Your task to perform on an android device: delete location history Image 0: 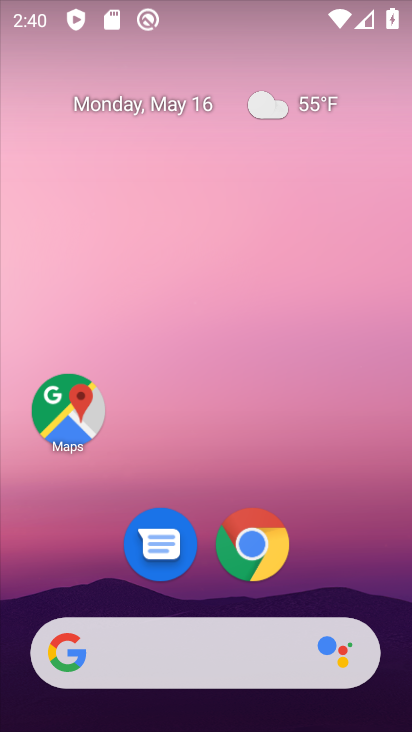
Step 0: drag from (346, 534) to (339, 65)
Your task to perform on an android device: delete location history Image 1: 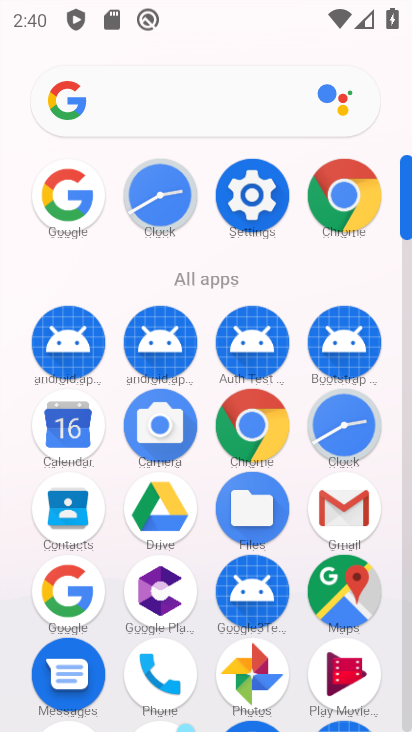
Step 1: click (267, 189)
Your task to perform on an android device: delete location history Image 2: 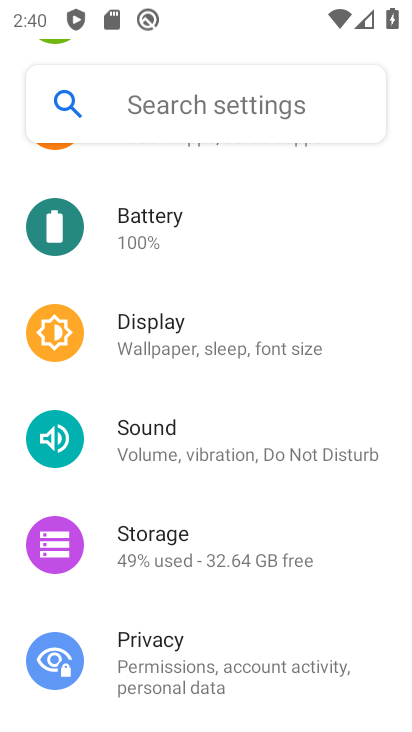
Step 2: drag from (171, 585) to (233, 272)
Your task to perform on an android device: delete location history Image 3: 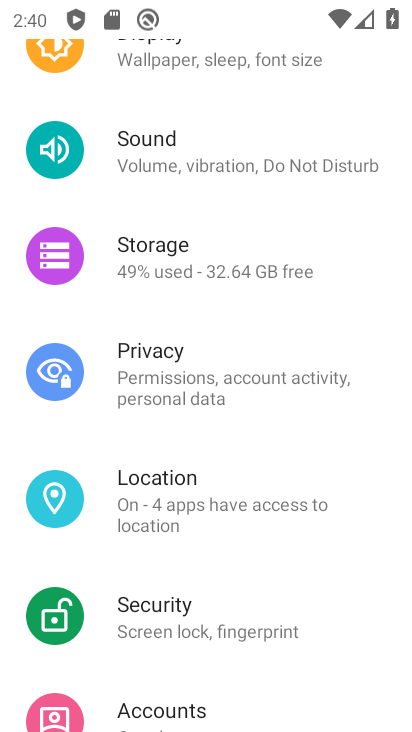
Step 3: click (208, 483)
Your task to perform on an android device: delete location history Image 4: 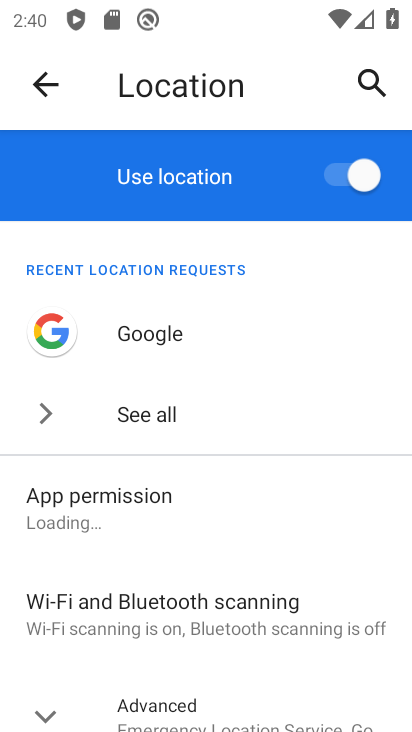
Step 4: drag from (208, 441) to (207, 109)
Your task to perform on an android device: delete location history Image 5: 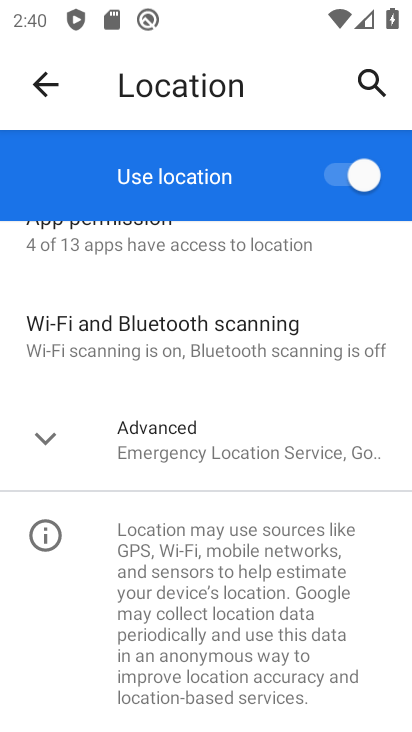
Step 5: click (210, 538)
Your task to perform on an android device: delete location history Image 6: 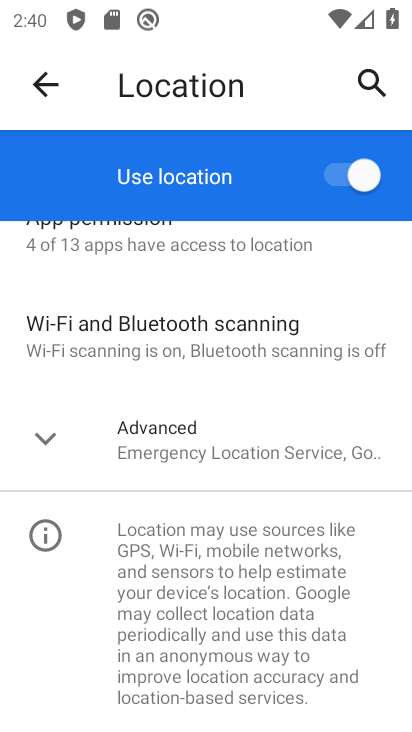
Step 6: press home button
Your task to perform on an android device: delete location history Image 7: 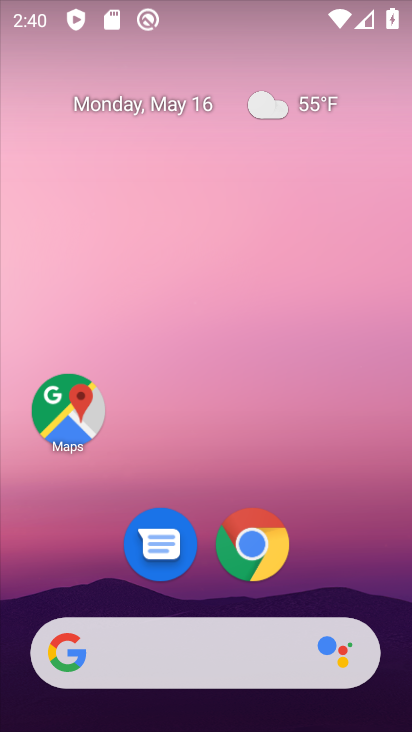
Step 7: drag from (346, 567) to (281, 185)
Your task to perform on an android device: delete location history Image 8: 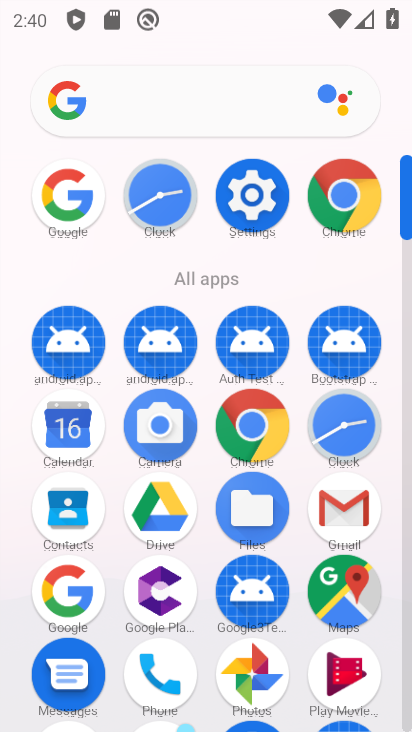
Step 8: click (347, 598)
Your task to perform on an android device: delete location history Image 9: 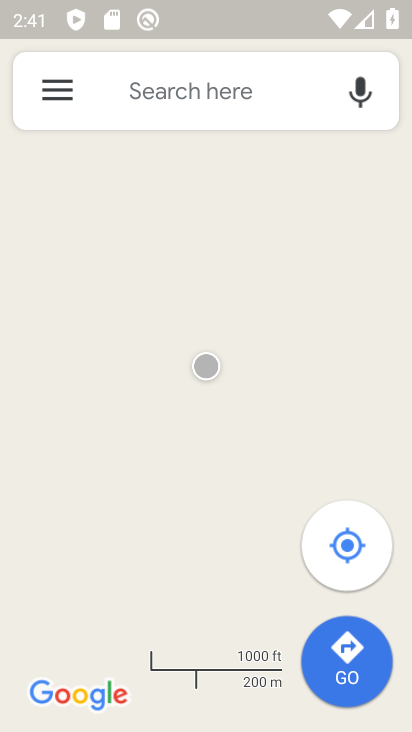
Step 9: click (54, 94)
Your task to perform on an android device: delete location history Image 10: 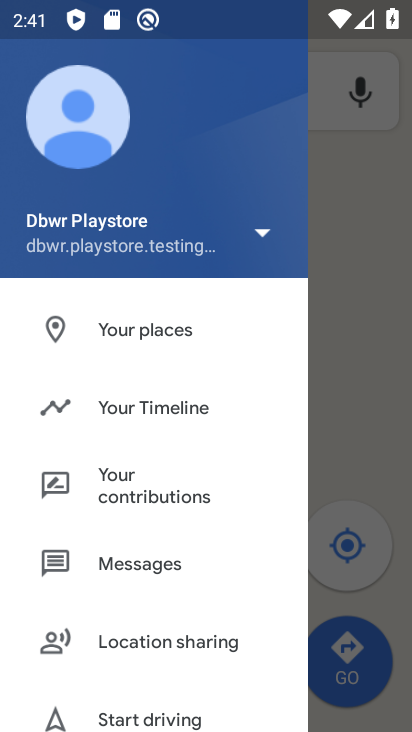
Step 10: click (150, 403)
Your task to perform on an android device: delete location history Image 11: 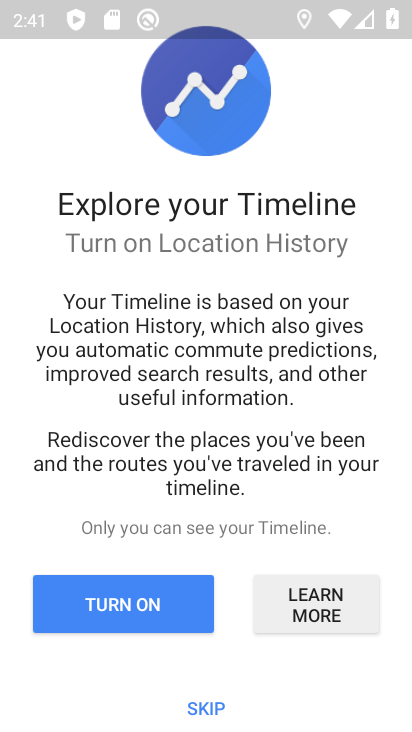
Step 11: click (227, 723)
Your task to perform on an android device: delete location history Image 12: 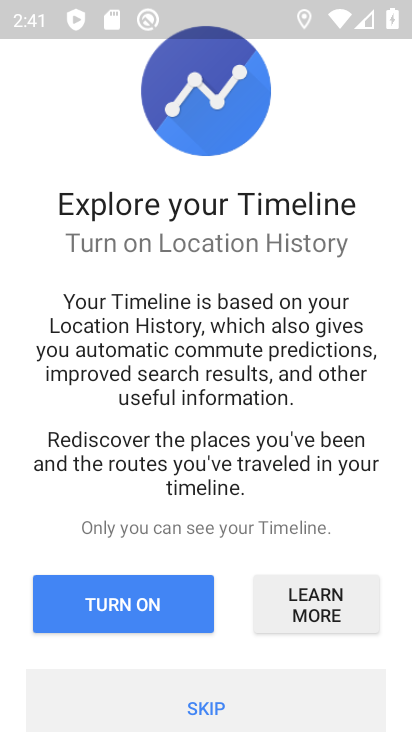
Step 12: click (218, 718)
Your task to perform on an android device: delete location history Image 13: 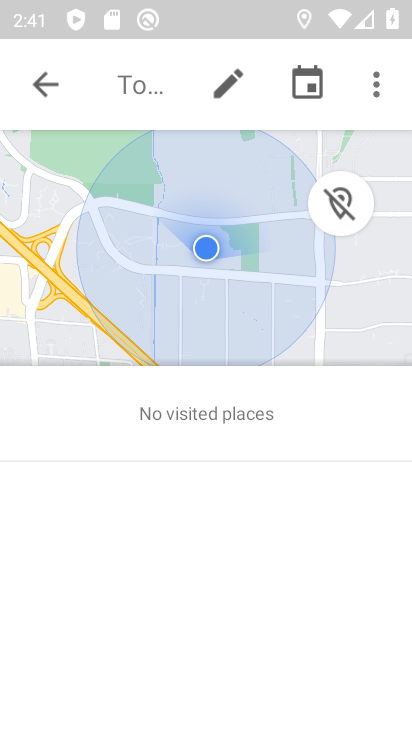
Step 13: click (380, 96)
Your task to perform on an android device: delete location history Image 14: 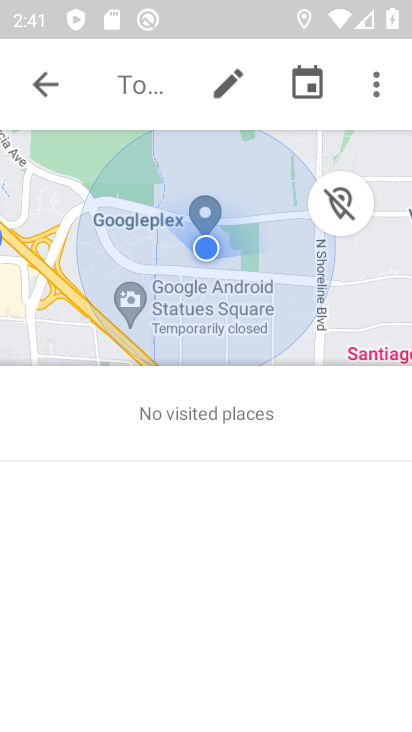
Step 14: click (365, 86)
Your task to perform on an android device: delete location history Image 15: 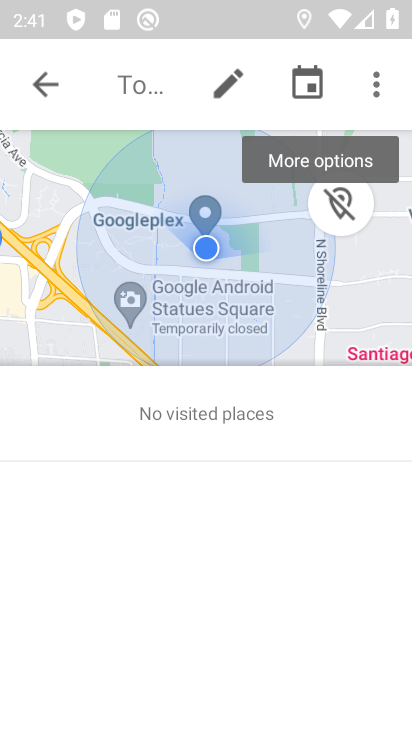
Step 15: click (366, 86)
Your task to perform on an android device: delete location history Image 16: 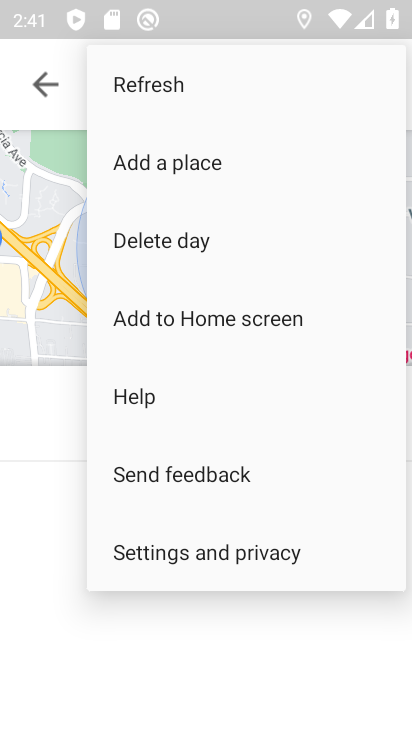
Step 16: click (170, 544)
Your task to perform on an android device: delete location history Image 17: 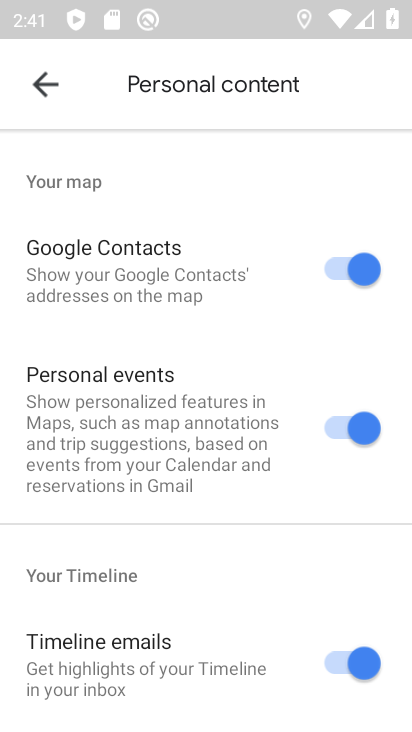
Step 17: drag from (170, 541) to (153, 261)
Your task to perform on an android device: delete location history Image 18: 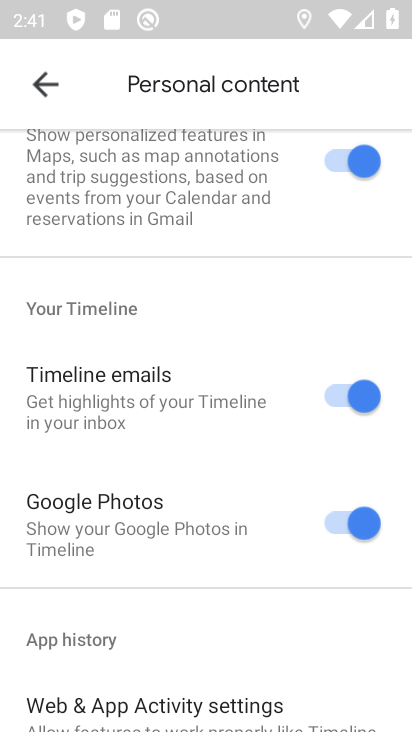
Step 18: drag from (157, 540) to (150, 299)
Your task to perform on an android device: delete location history Image 19: 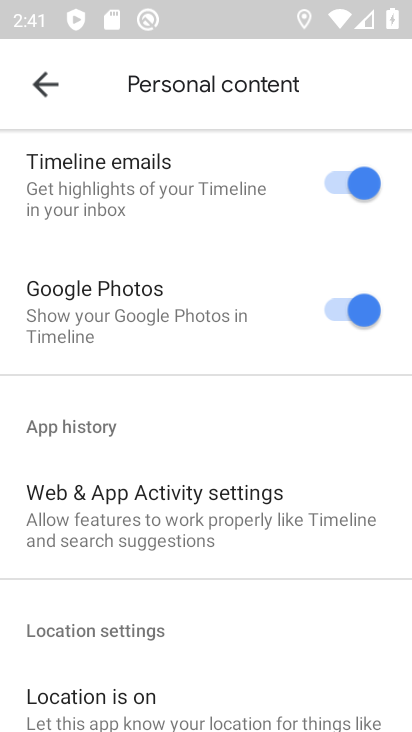
Step 19: drag from (180, 549) to (178, 337)
Your task to perform on an android device: delete location history Image 20: 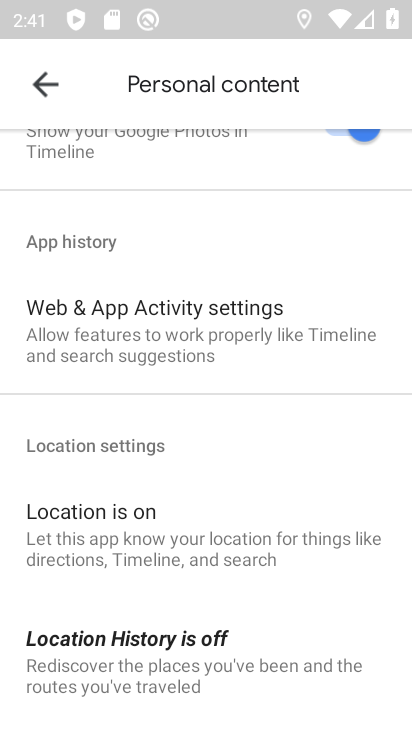
Step 20: drag from (197, 355) to (167, 601)
Your task to perform on an android device: delete location history Image 21: 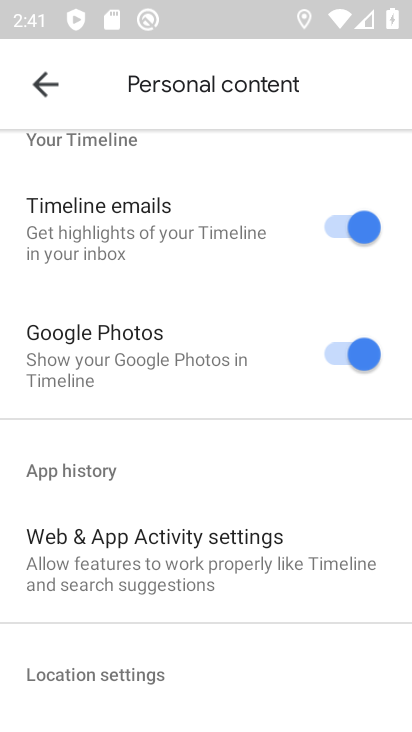
Step 21: drag from (170, 589) to (185, 417)
Your task to perform on an android device: delete location history Image 22: 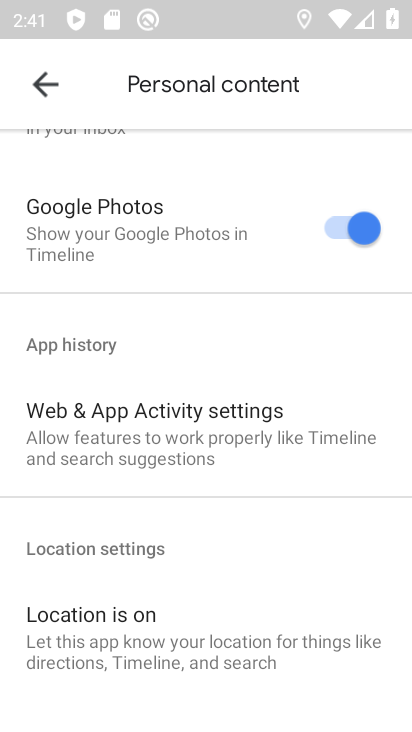
Step 22: drag from (161, 558) to (202, 410)
Your task to perform on an android device: delete location history Image 23: 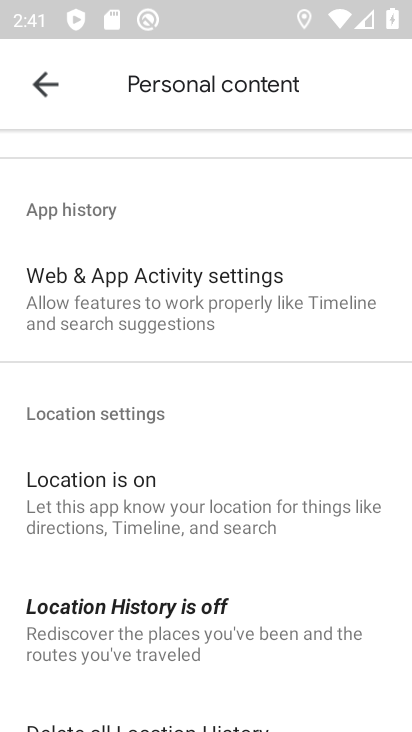
Step 23: drag from (53, 363) to (96, 240)
Your task to perform on an android device: delete location history Image 24: 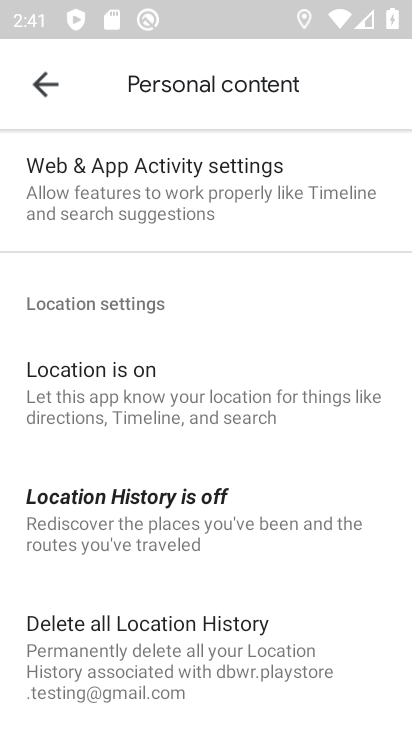
Step 24: click (142, 637)
Your task to perform on an android device: delete location history Image 25: 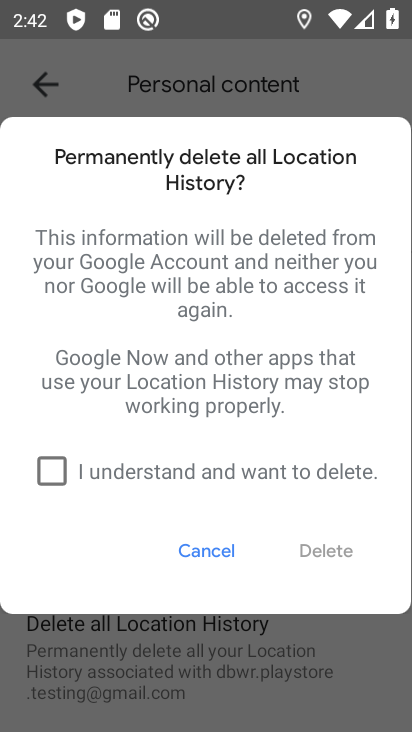
Step 25: click (68, 484)
Your task to perform on an android device: delete location history Image 26: 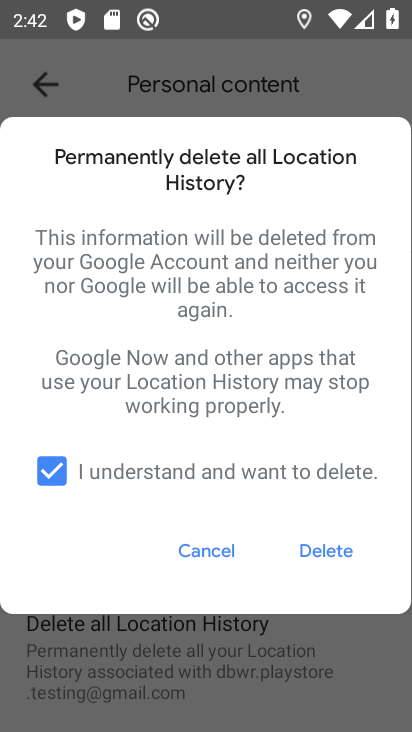
Step 26: click (337, 554)
Your task to perform on an android device: delete location history Image 27: 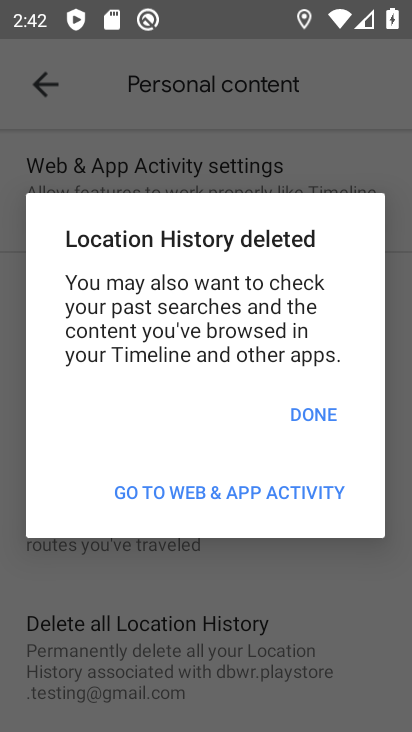
Step 27: task complete